Your task to perform on an android device: empty trash in google photos Image 0: 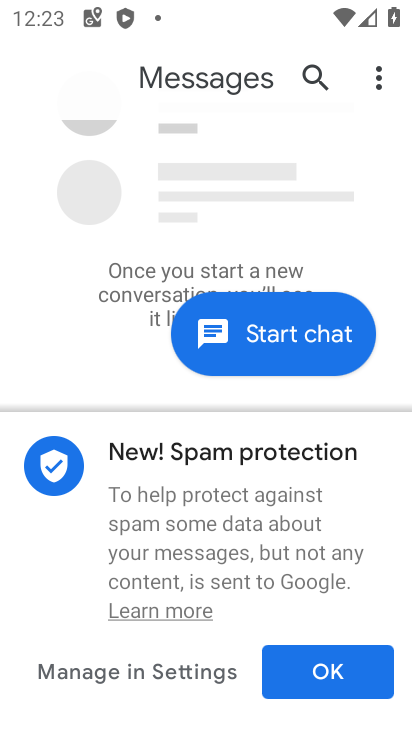
Step 0: press home button
Your task to perform on an android device: empty trash in google photos Image 1: 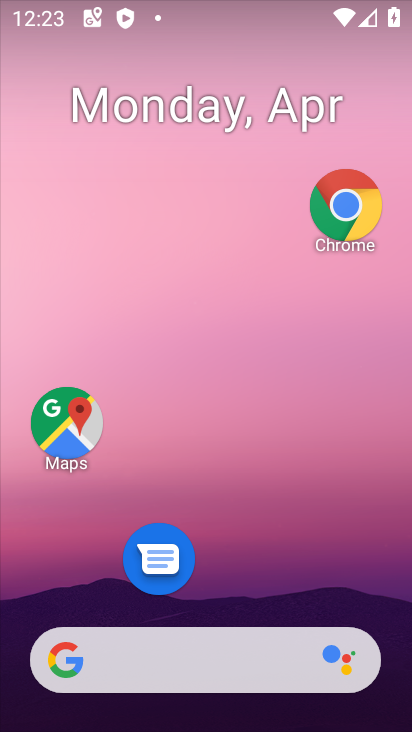
Step 1: drag from (241, 587) to (239, 108)
Your task to perform on an android device: empty trash in google photos Image 2: 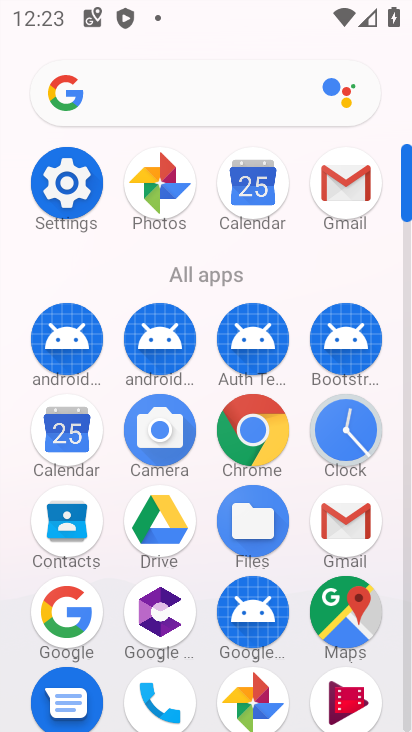
Step 2: click (56, 189)
Your task to perform on an android device: empty trash in google photos Image 3: 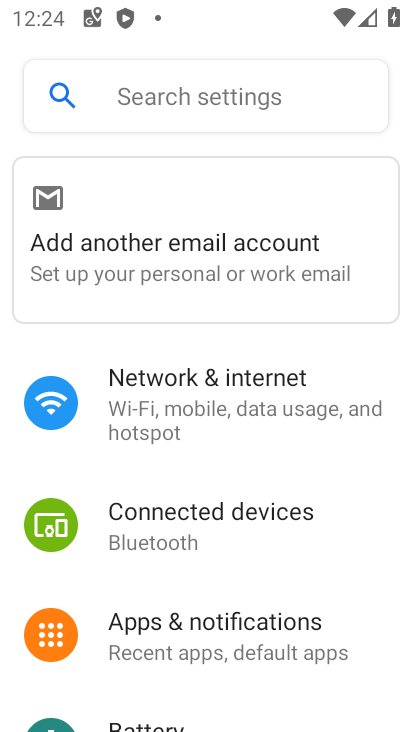
Step 3: press home button
Your task to perform on an android device: empty trash in google photos Image 4: 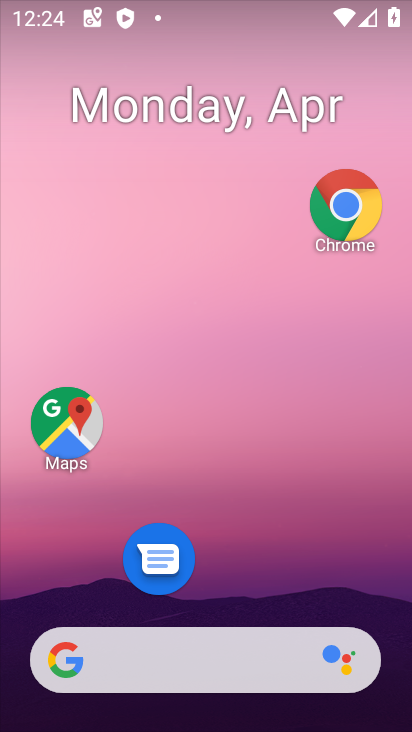
Step 4: drag from (282, 597) to (213, 105)
Your task to perform on an android device: empty trash in google photos Image 5: 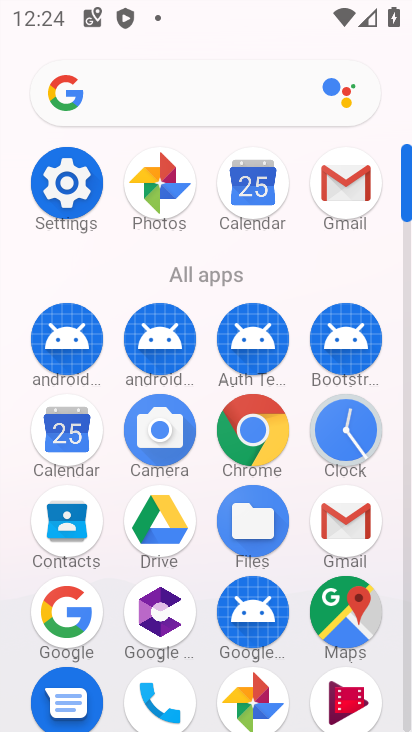
Step 5: click (247, 684)
Your task to perform on an android device: empty trash in google photos Image 6: 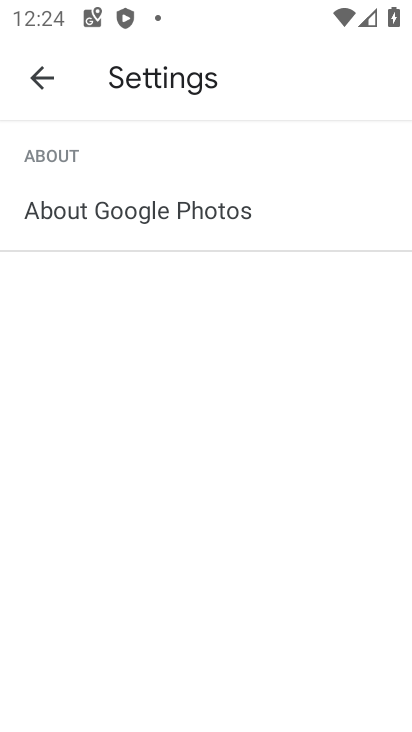
Step 6: click (29, 86)
Your task to perform on an android device: empty trash in google photos Image 7: 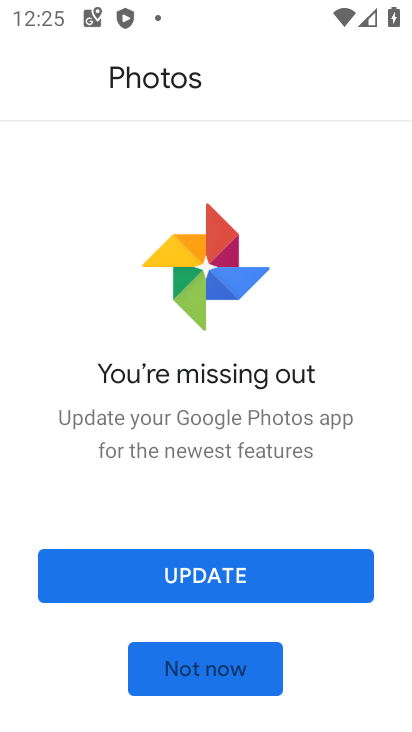
Step 7: click (251, 671)
Your task to perform on an android device: empty trash in google photos Image 8: 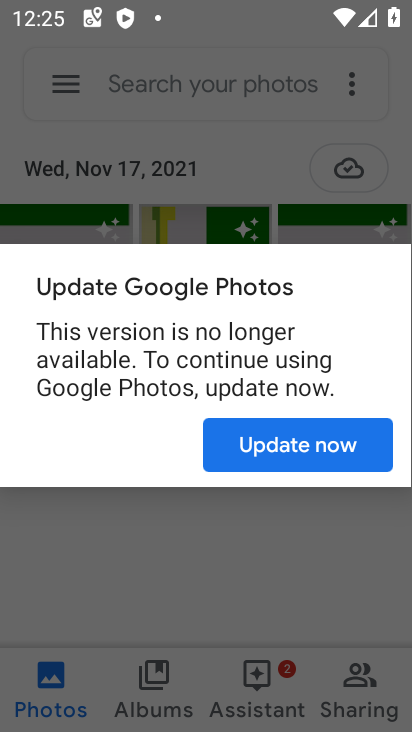
Step 8: click (275, 442)
Your task to perform on an android device: empty trash in google photos Image 9: 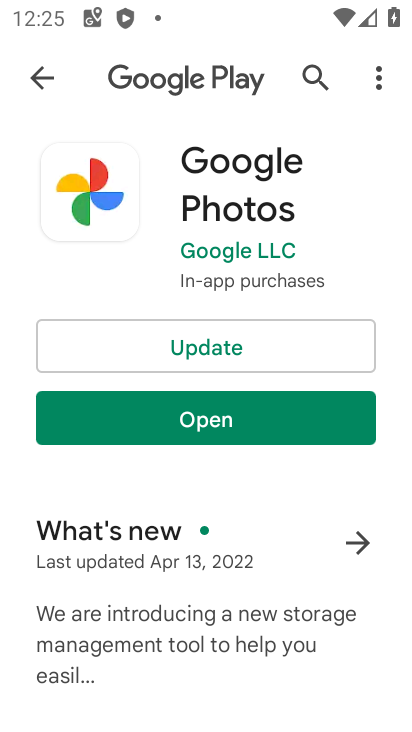
Step 9: click (277, 428)
Your task to perform on an android device: empty trash in google photos Image 10: 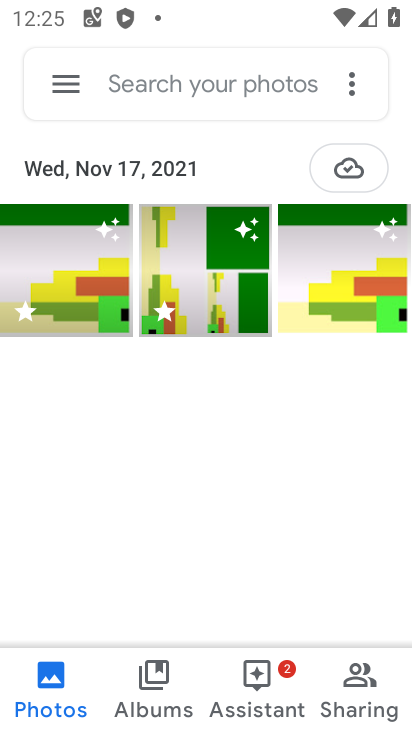
Step 10: click (52, 86)
Your task to perform on an android device: empty trash in google photos Image 11: 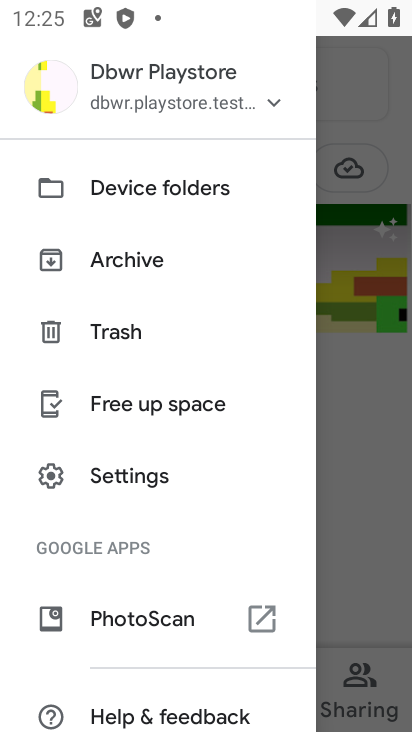
Step 11: click (133, 341)
Your task to perform on an android device: empty trash in google photos Image 12: 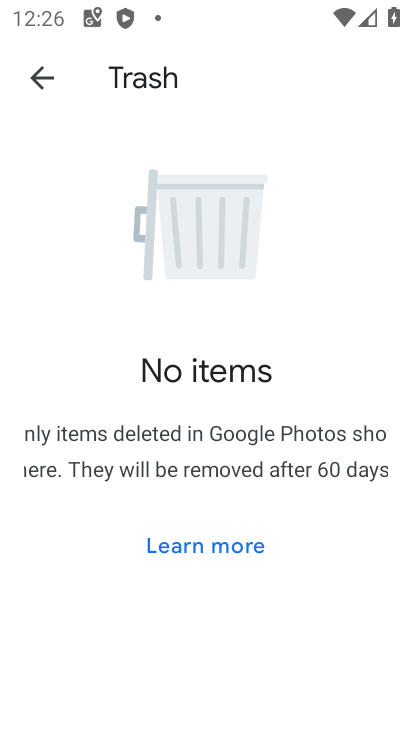
Step 12: task complete